Your task to perform on an android device: find snoozed emails in the gmail app Image 0: 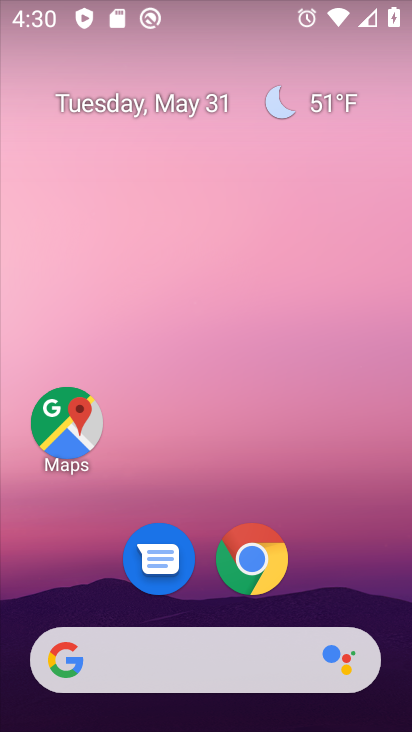
Step 0: drag from (334, 577) to (289, 30)
Your task to perform on an android device: find snoozed emails in the gmail app Image 1: 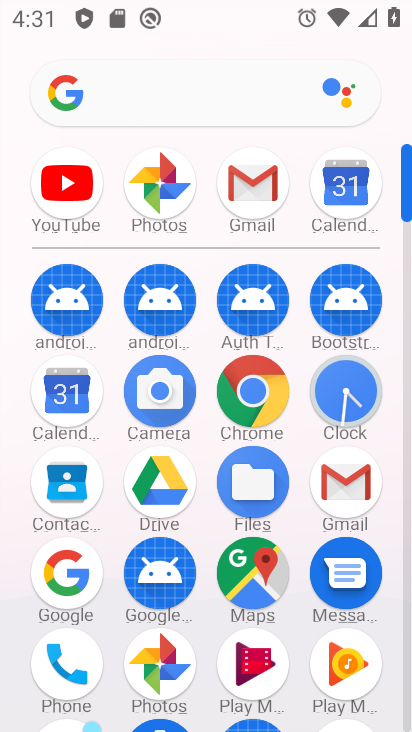
Step 1: click (341, 481)
Your task to perform on an android device: find snoozed emails in the gmail app Image 2: 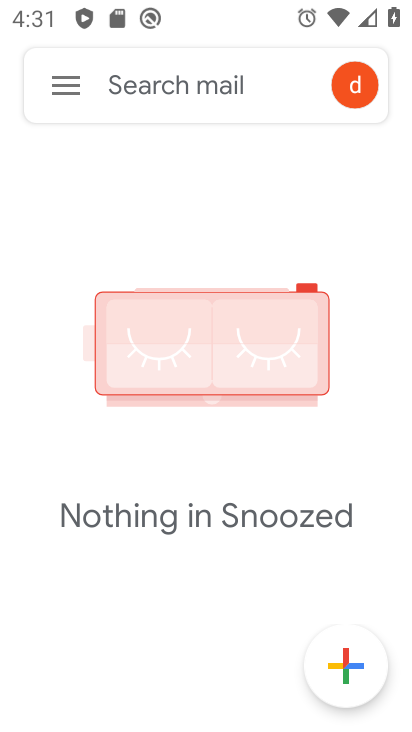
Step 2: task complete